Your task to perform on an android device: Open wifi settings Image 0: 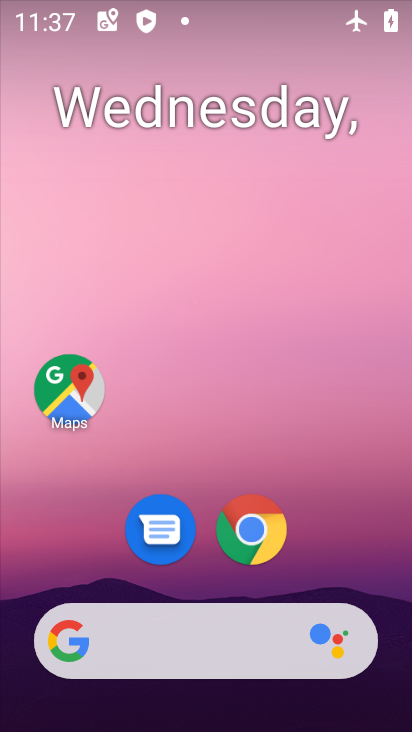
Step 0: drag from (207, 609) to (261, 76)
Your task to perform on an android device: Open wifi settings Image 1: 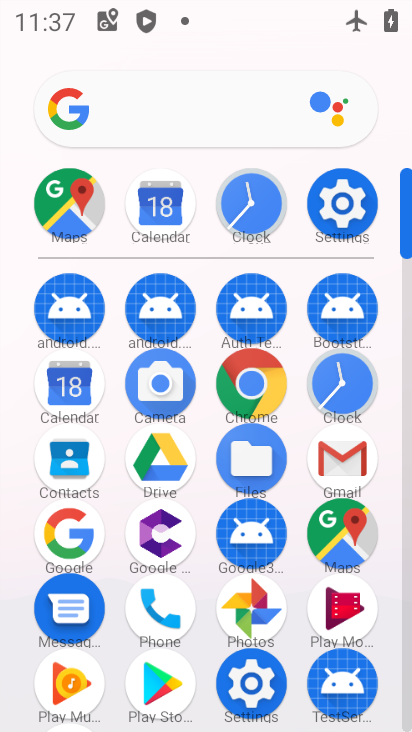
Step 1: click (335, 215)
Your task to perform on an android device: Open wifi settings Image 2: 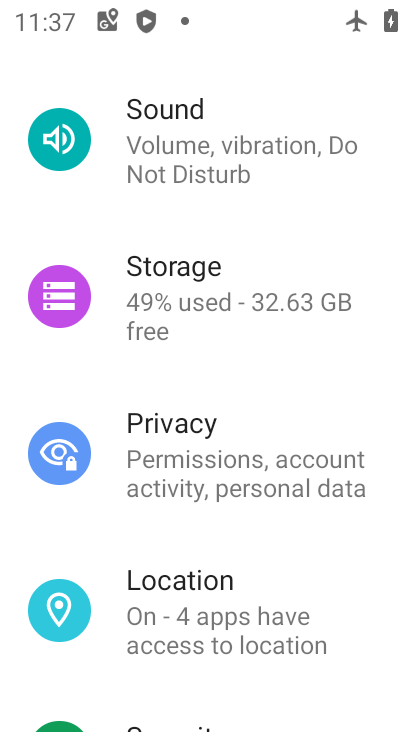
Step 2: drag from (117, 185) to (109, 558)
Your task to perform on an android device: Open wifi settings Image 3: 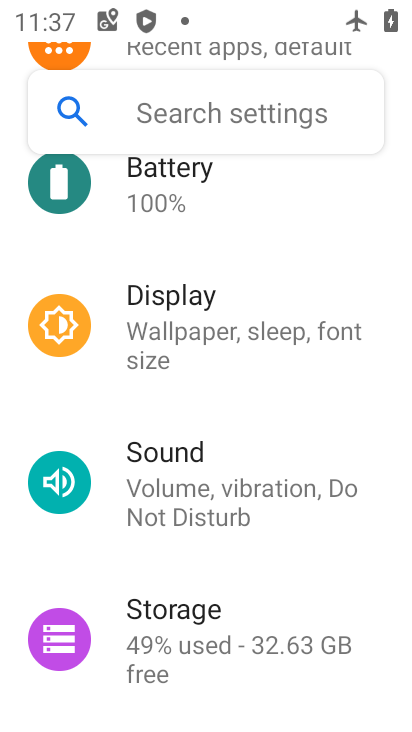
Step 3: drag from (284, 166) to (290, 434)
Your task to perform on an android device: Open wifi settings Image 4: 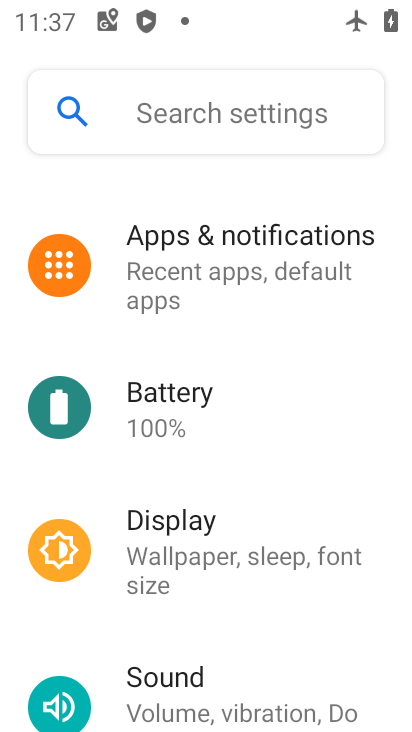
Step 4: drag from (252, 223) to (244, 571)
Your task to perform on an android device: Open wifi settings Image 5: 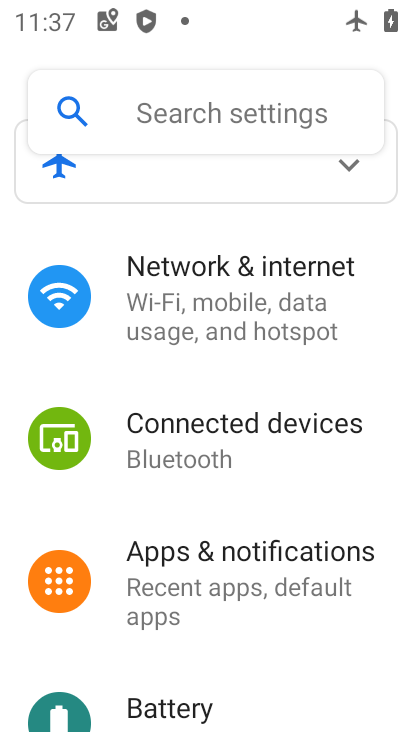
Step 5: click (228, 280)
Your task to perform on an android device: Open wifi settings Image 6: 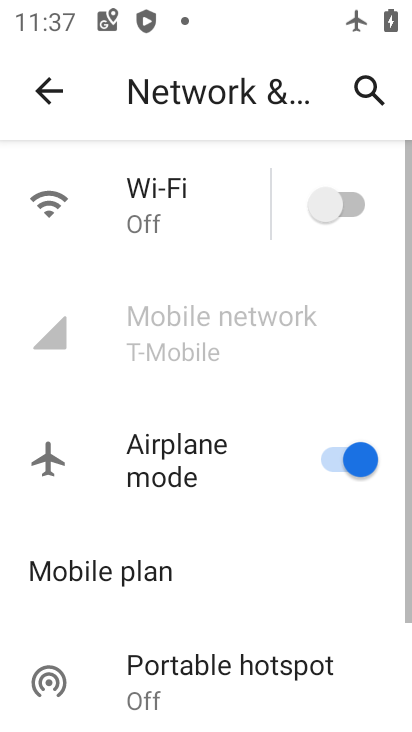
Step 6: click (139, 230)
Your task to perform on an android device: Open wifi settings Image 7: 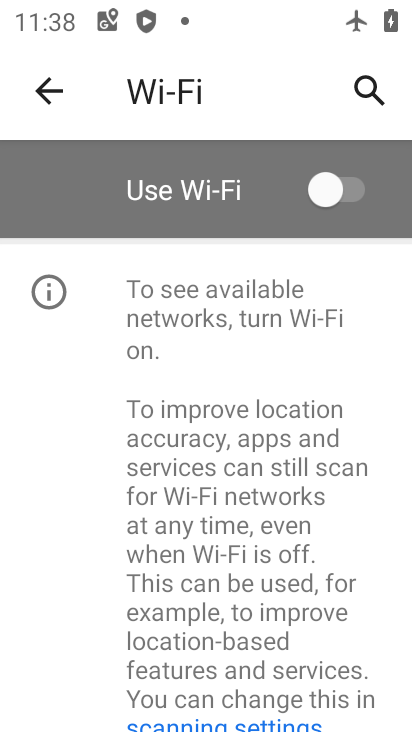
Step 7: task complete